Your task to perform on an android device: toggle translation in the chrome app Image 0: 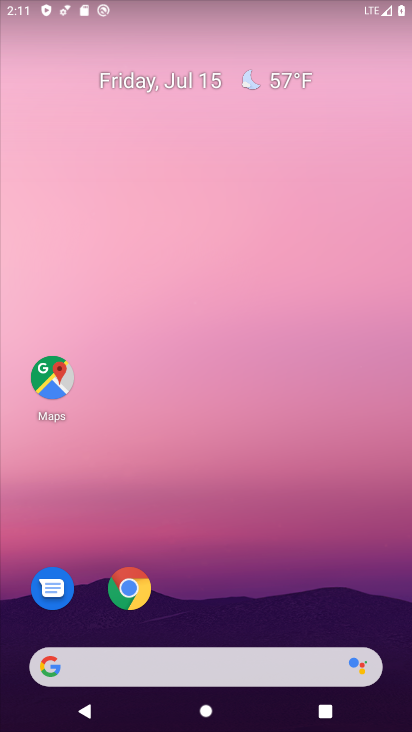
Step 0: click (136, 589)
Your task to perform on an android device: toggle translation in the chrome app Image 1: 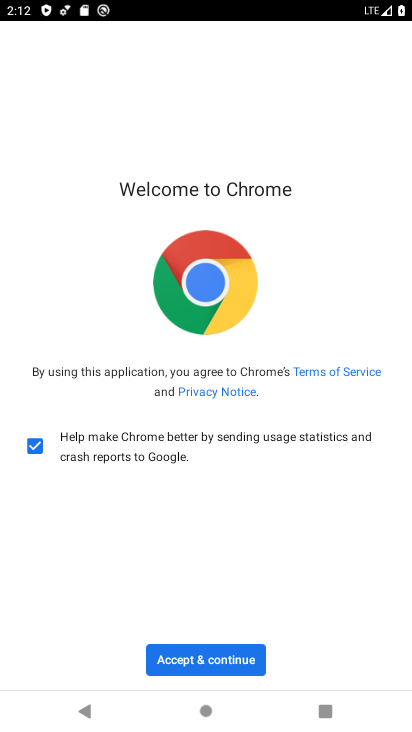
Step 1: click (216, 657)
Your task to perform on an android device: toggle translation in the chrome app Image 2: 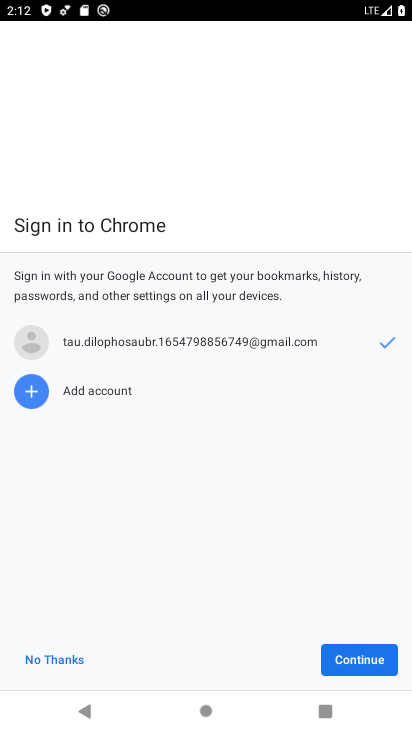
Step 2: click (370, 662)
Your task to perform on an android device: toggle translation in the chrome app Image 3: 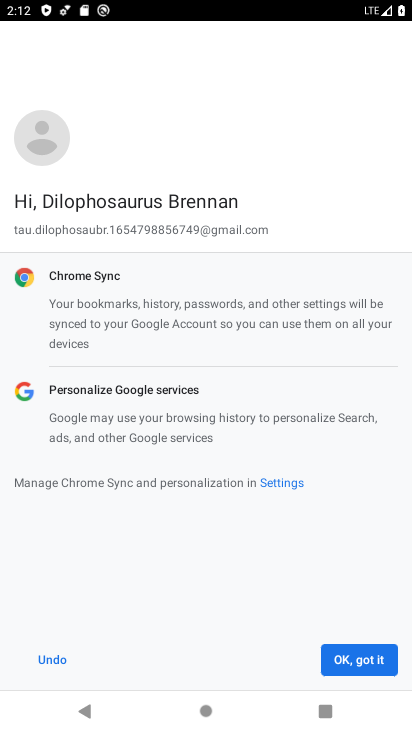
Step 3: click (370, 662)
Your task to perform on an android device: toggle translation in the chrome app Image 4: 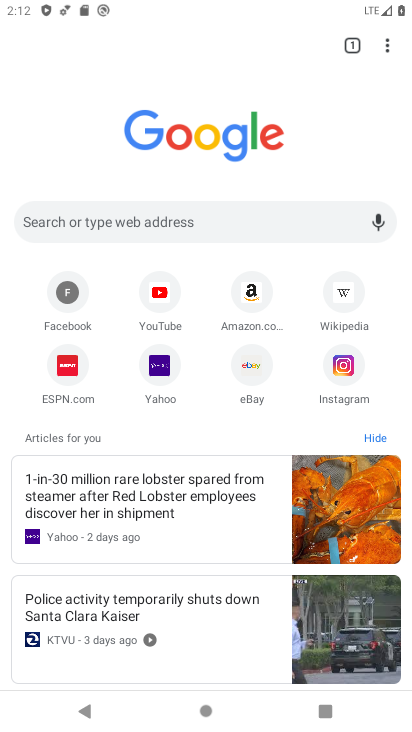
Step 4: click (383, 50)
Your task to perform on an android device: toggle translation in the chrome app Image 5: 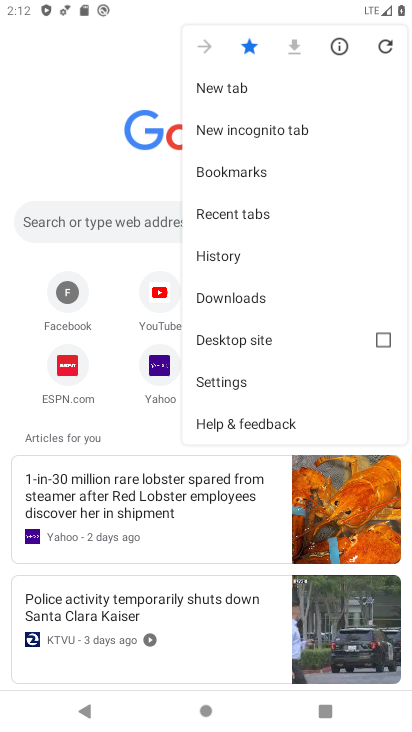
Step 5: click (239, 384)
Your task to perform on an android device: toggle translation in the chrome app Image 6: 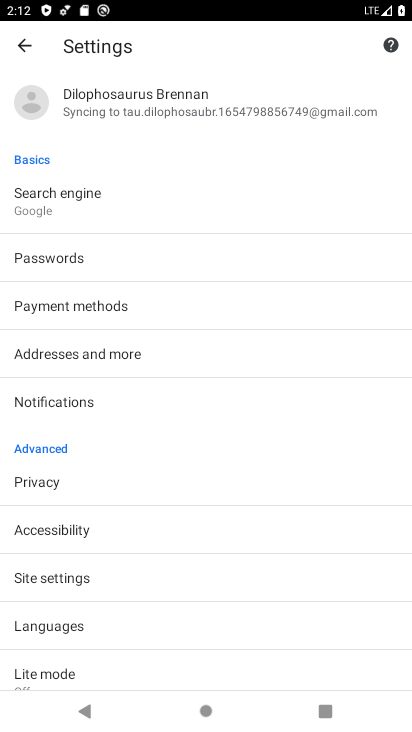
Step 6: click (101, 629)
Your task to perform on an android device: toggle translation in the chrome app Image 7: 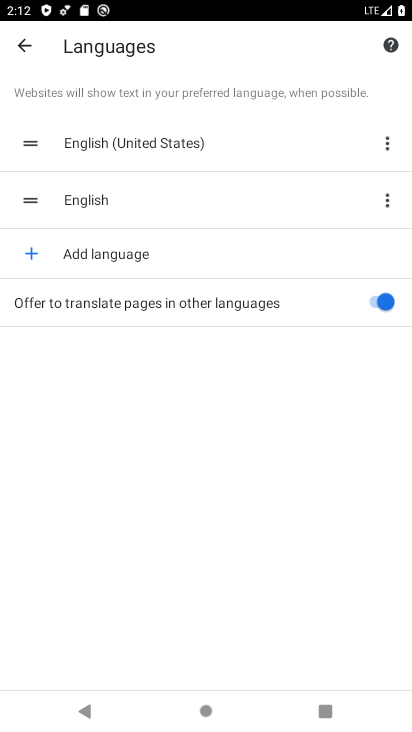
Step 7: click (385, 299)
Your task to perform on an android device: toggle translation in the chrome app Image 8: 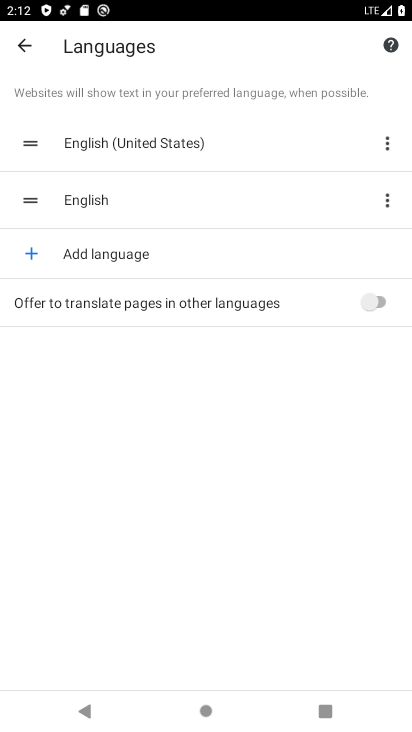
Step 8: task complete